Your task to perform on an android device: turn off wifi Image 0: 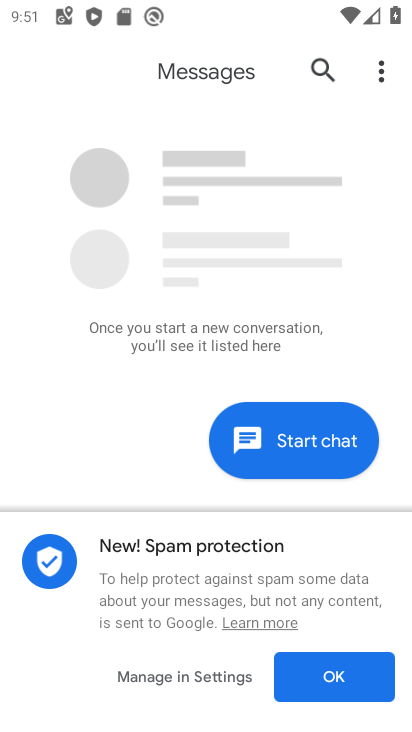
Step 0: press home button
Your task to perform on an android device: turn off wifi Image 1: 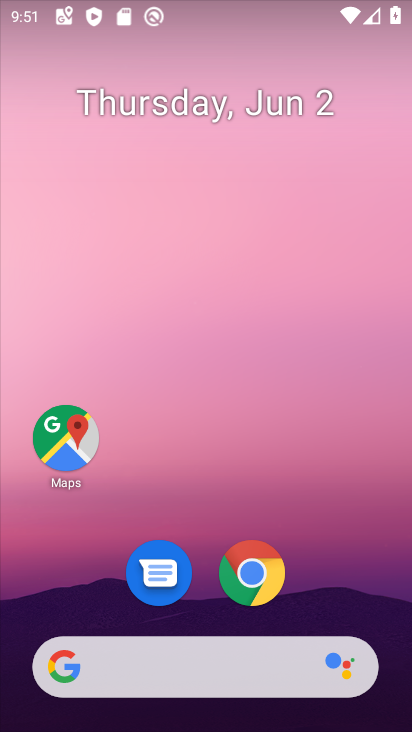
Step 1: drag from (318, 592) to (277, 54)
Your task to perform on an android device: turn off wifi Image 2: 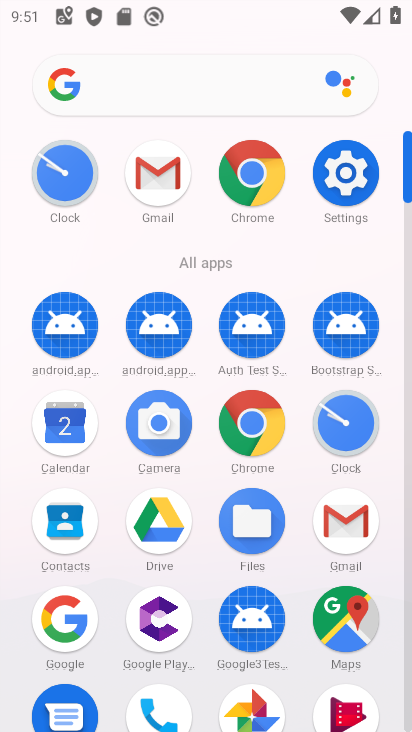
Step 2: click (345, 178)
Your task to perform on an android device: turn off wifi Image 3: 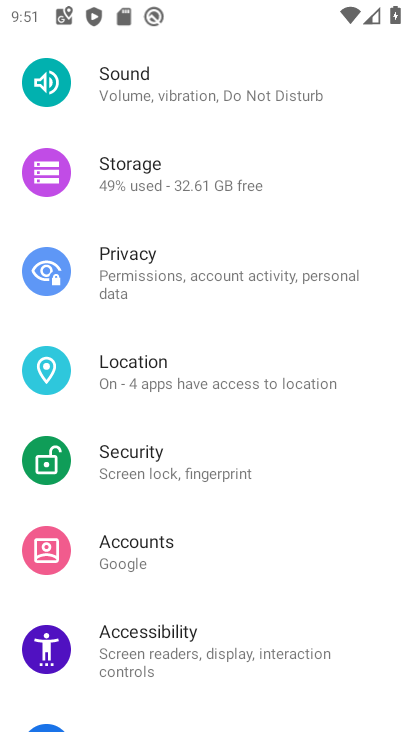
Step 3: drag from (241, 126) to (233, 645)
Your task to perform on an android device: turn off wifi Image 4: 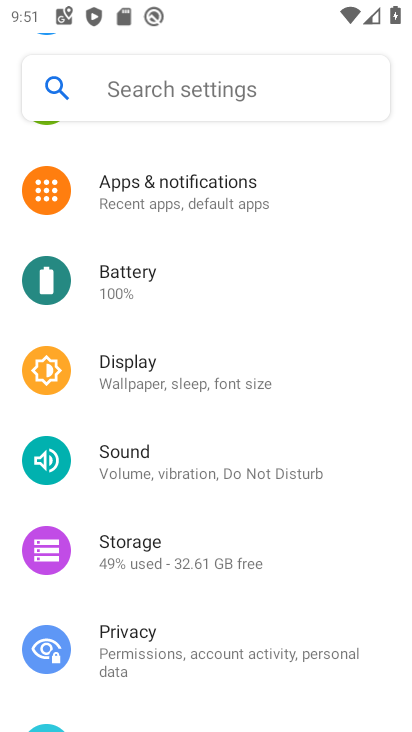
Step 4: drag from (237, 227) to (244, 643)
Your task to perform on an android device: turn off wifi Image 5: 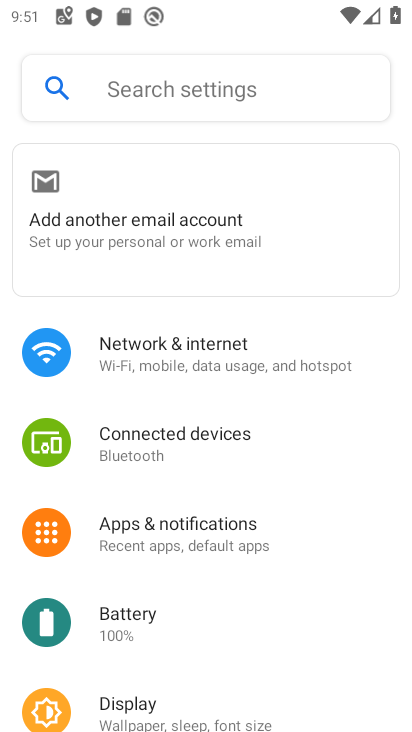
Step 5: click (197, 369)
Your task to perform on an android device: turn off wifi Image 6: 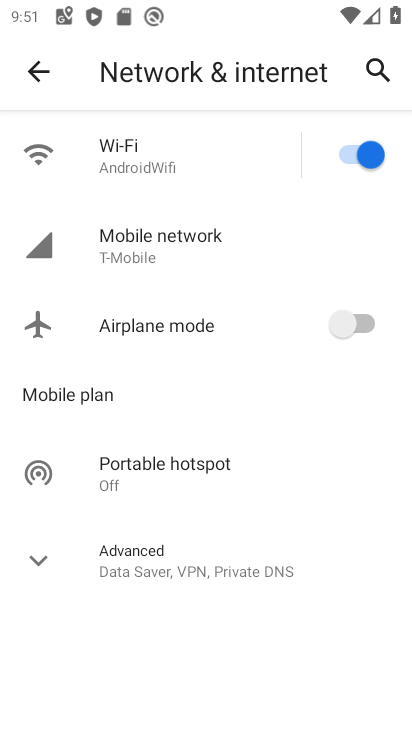
Step 6: click (337, 152)
Your task to perform on an android device: turn off wifi Image 7: 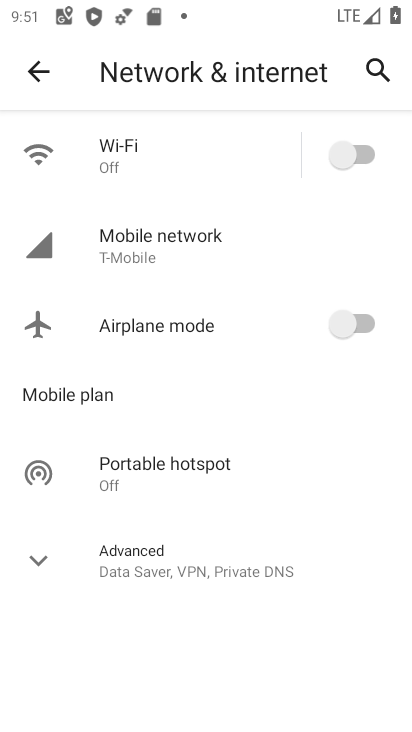
Step 7: task complete